Your task to perform on an android device: Go to ESPN.com Image 0: 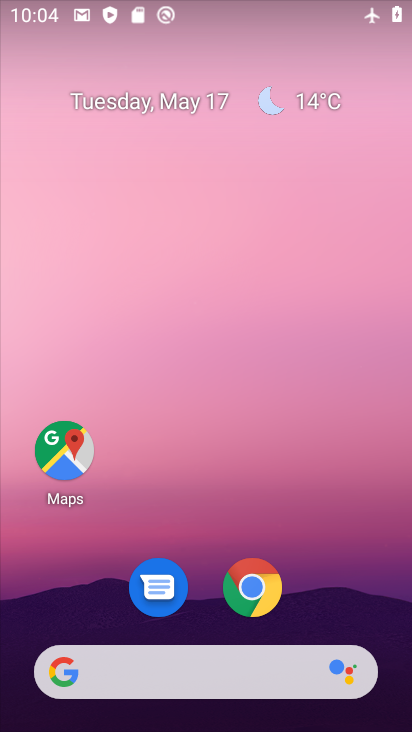
Step 0: drag from (312, 575) to (218, 324)
Your task to perform on an android device: Go to ESPN.com Image 1: 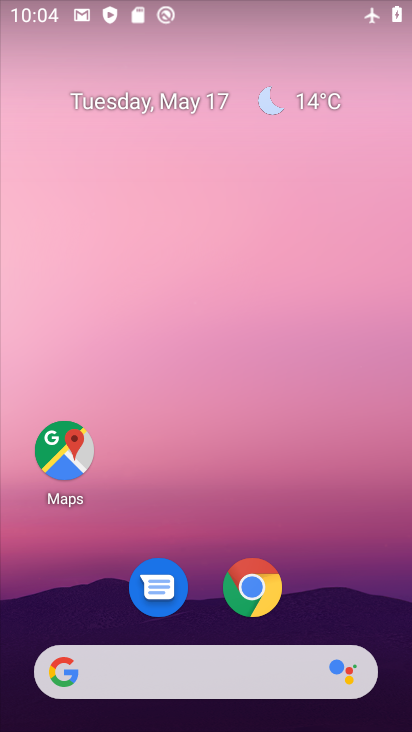
Step 1: drag from (242, 195) to (211, 30)
Your task to perform on an android device: Go to ESPN.com Image 2: 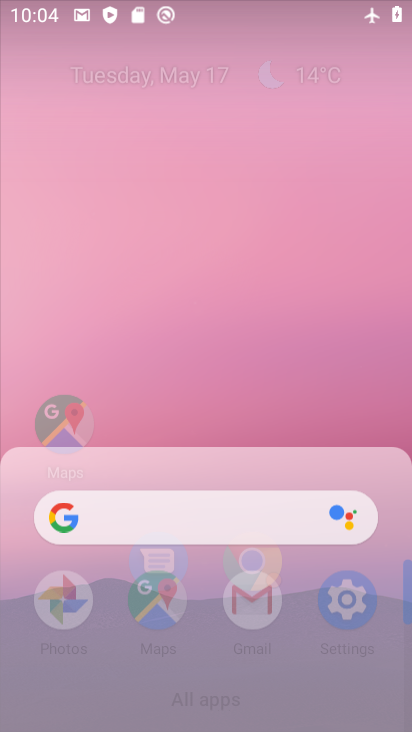
Step 2: drag from (267, 339) to (254, 5)
Your task to perform on an android device: Go to ESPN.com Image 3: 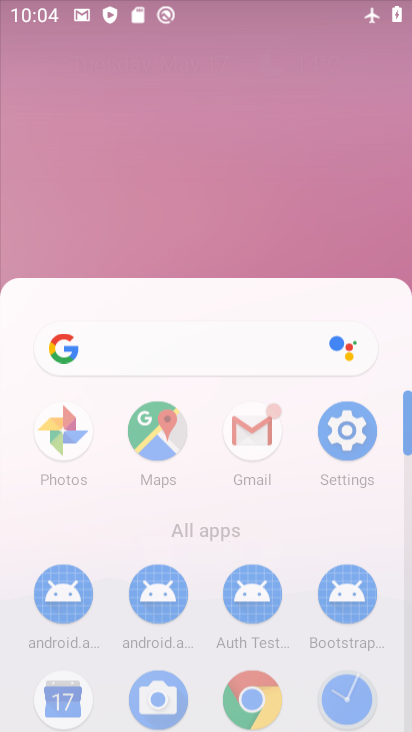
Step 3: drag from (244, 513) to (158, 100)
Your task to perform on an android device: Go to ESPN.com Image 4: 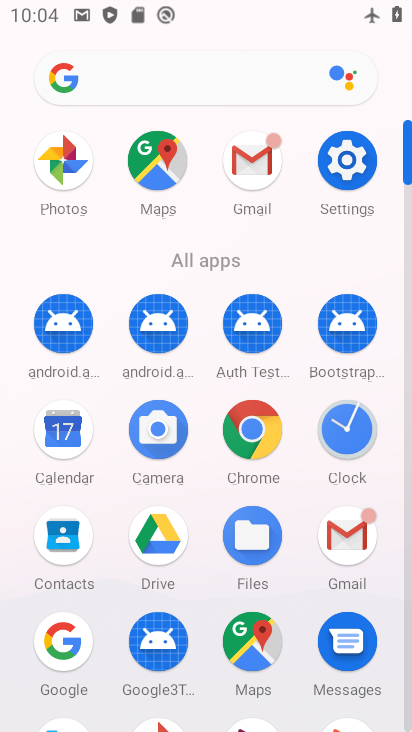
Step 4: drag from (221, 514) to (160, 127)
Your task to perform on an android device: Go to ESPN.com Image 5: 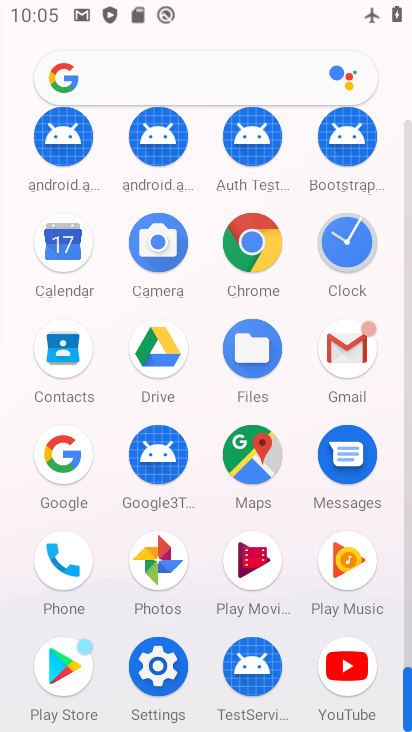
Step 5: click (252, 251)
Your task to perform on an android device: Go to ESPN.com Image 6: 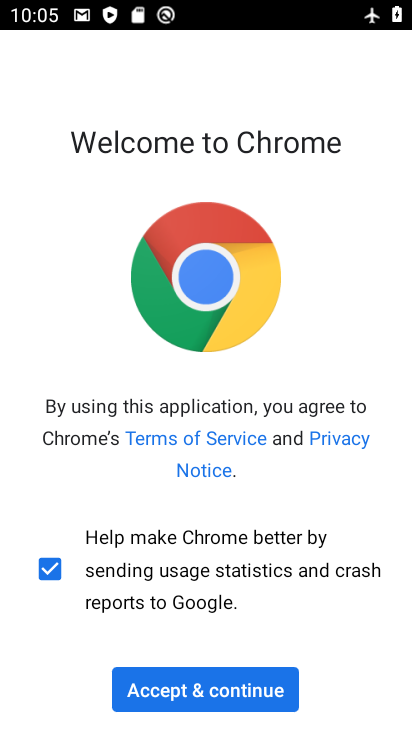
Step 6: click (213, 693)
Your task to perform on an android device: Go to ESPN.com Image 7: 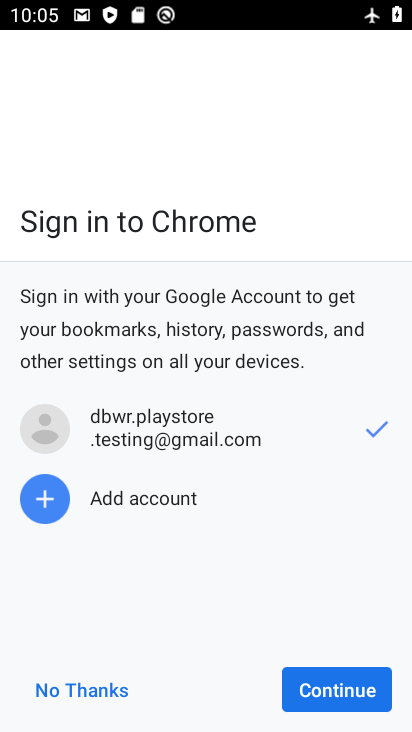
Step 7: click (200, 624)
Your task to perform on an android device: Go to ESPN.com Image 8: 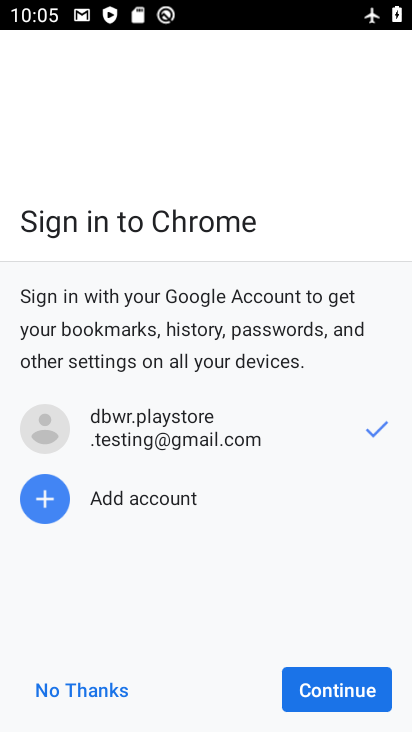
Step 8: click (210, 663)
Your task to perform on an android device: Go to ESPN.com Image 9: 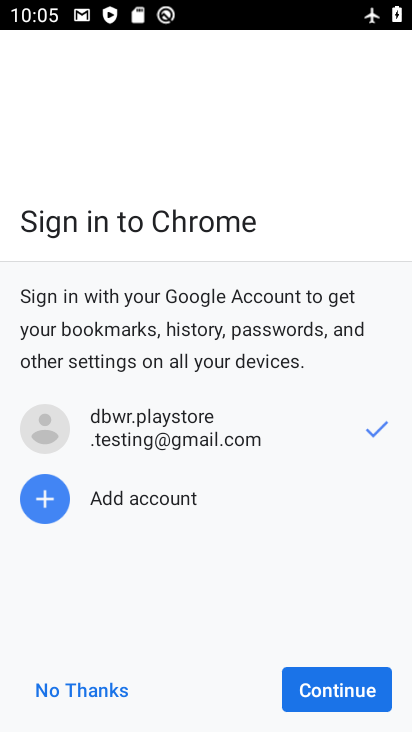
Step 9: click (301, 696)
Your task to perform on an android device: Go to ESPN.com Image 10: 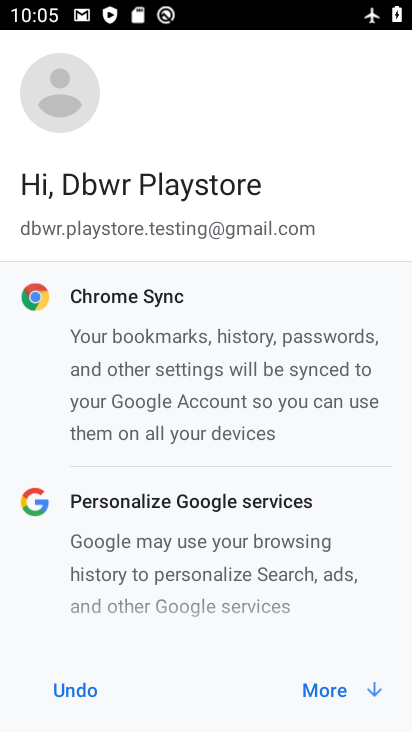
Step 10: click (302, 679)
Your task to perform on an android device: Go to ESPN.com Image 11: 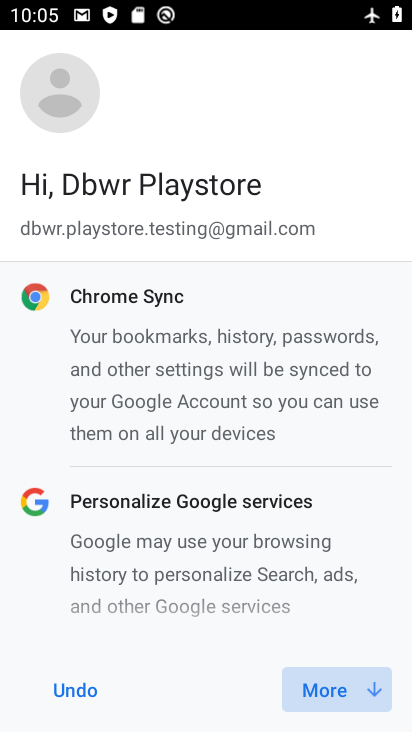
Step 11: click (302, 679)
Your task to perform on an android device: Go to ESPN.com Image 12: 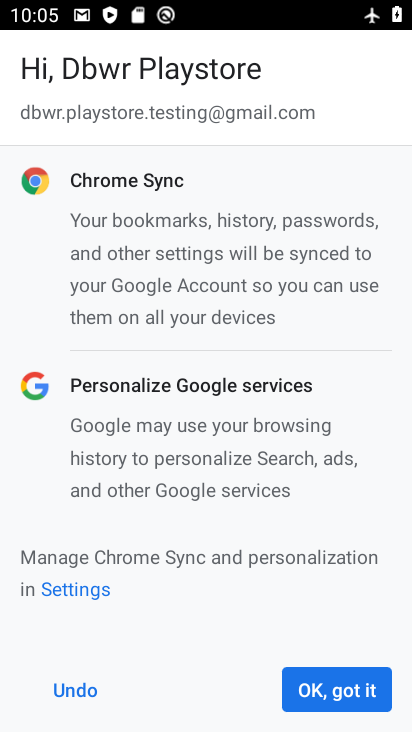
Step 12: click (341, 693)
Your task to perform on an android device: Go to ESPN.com Image 13: 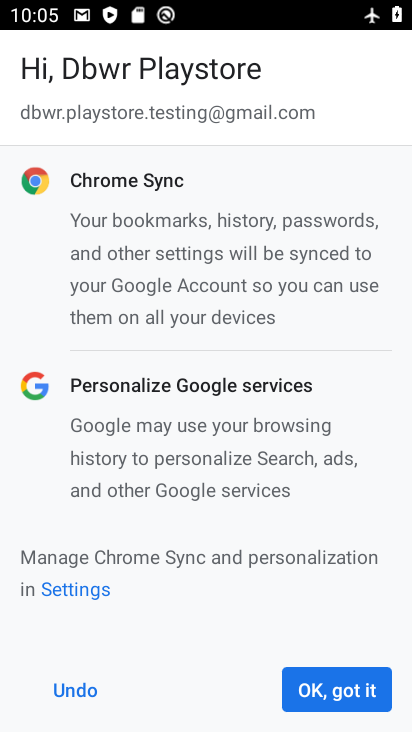
Step 13: click (344, 693)
Your task to perform on an android device: Go to ESPN.com Image 14: 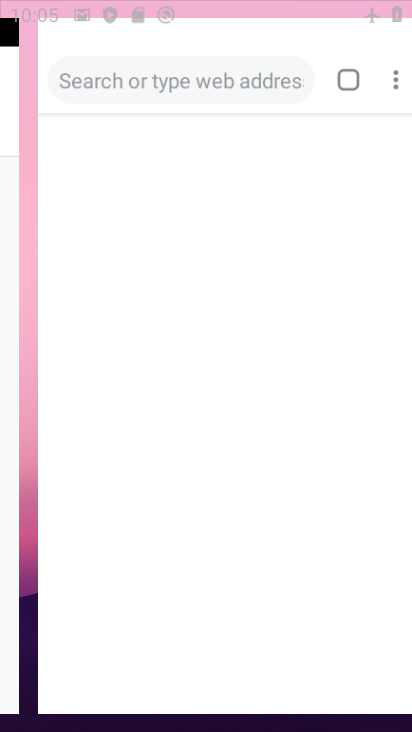
Step 14: click (350, 689)
Your task to perform on an android device: Go to ESPN.com Image 15: 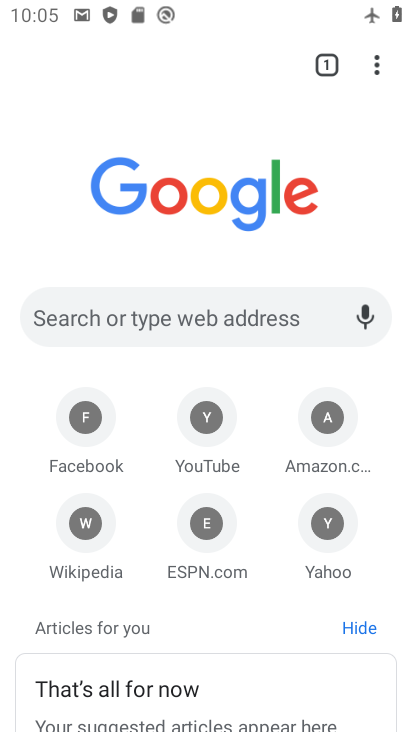
Step 15: click (209, 517)
Your task to perform on an android device: Go to ESPN.com Image 16: 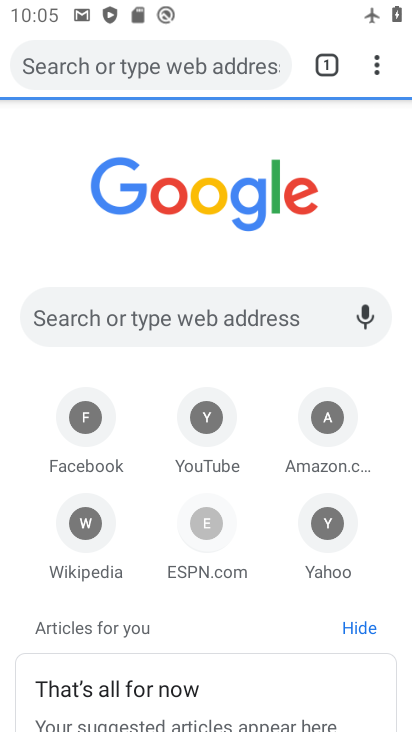
Step 16: click (210, 516)
Your task to perform on an android device: Go to ESPN.com Image 17: 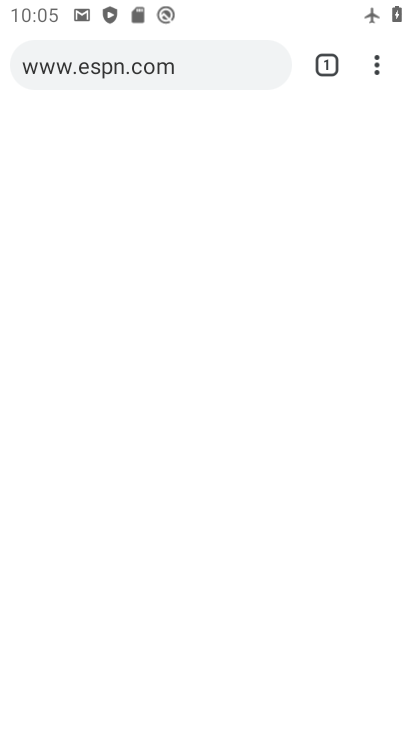
Step 17: click (210, 516)
Your task to perform on an android device: Go to ESPN.com Image 18: 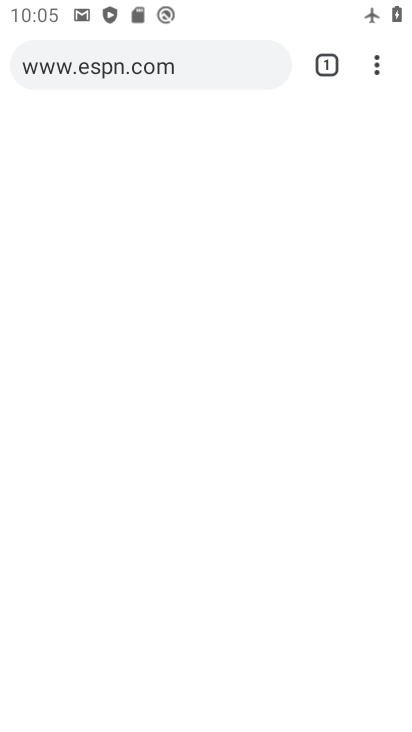
Step 18: click (210, 516)
Your task to perform on an android device: Go to ESPN.com Image 19: 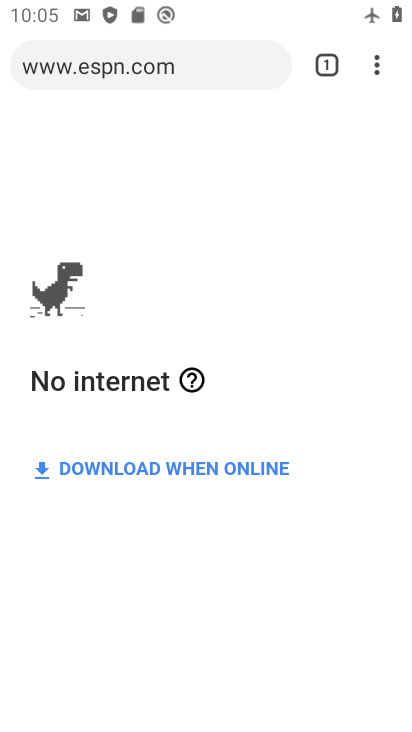
Step 19: task complete